Your task to perform on an android device: Is it going to rain today? Image 0: 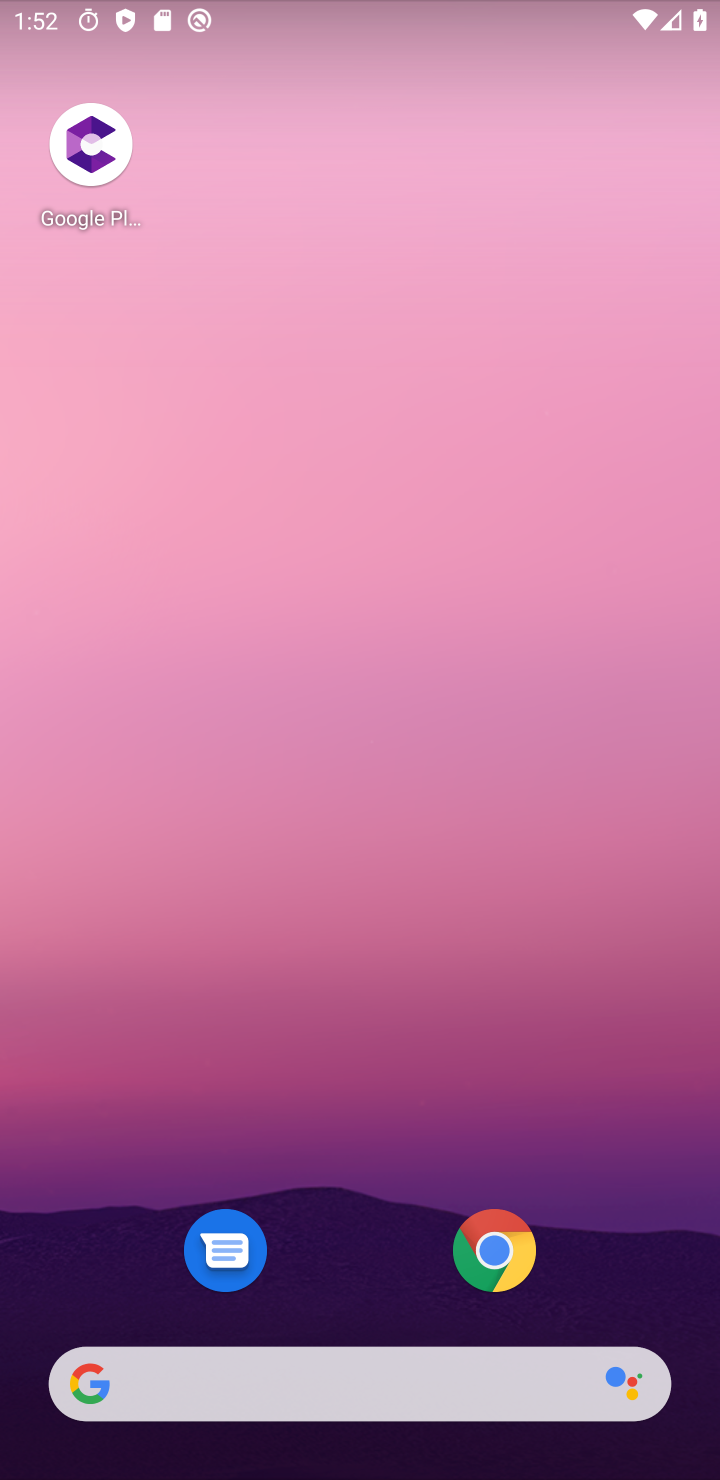
Step 0: drag from (340, 1158) to (496, 588)
Your task to perform on an android device: Is it going to rain today? Image 1: 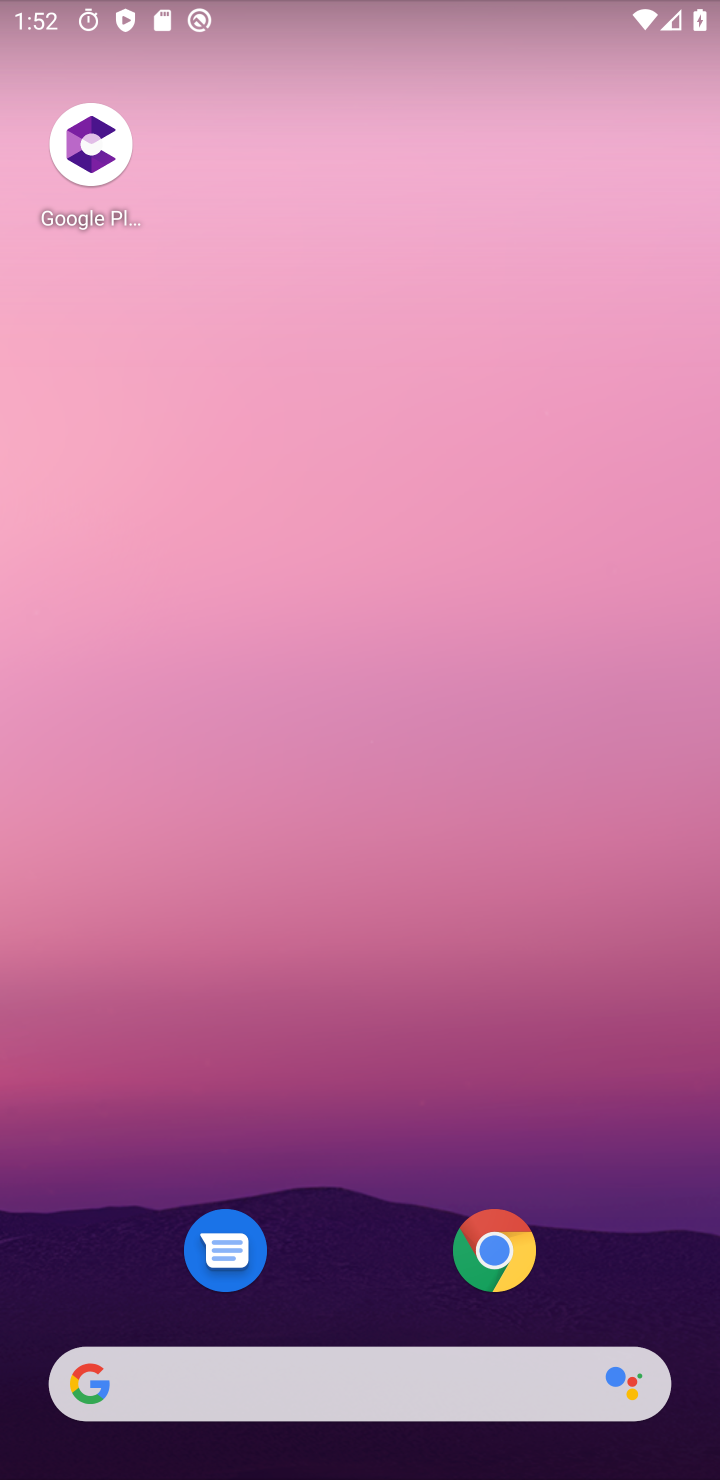
Step 1: drag from (371, 1286) to (390, 486)
Your task to perform on an android device: Is it going to rain today? Image 2: 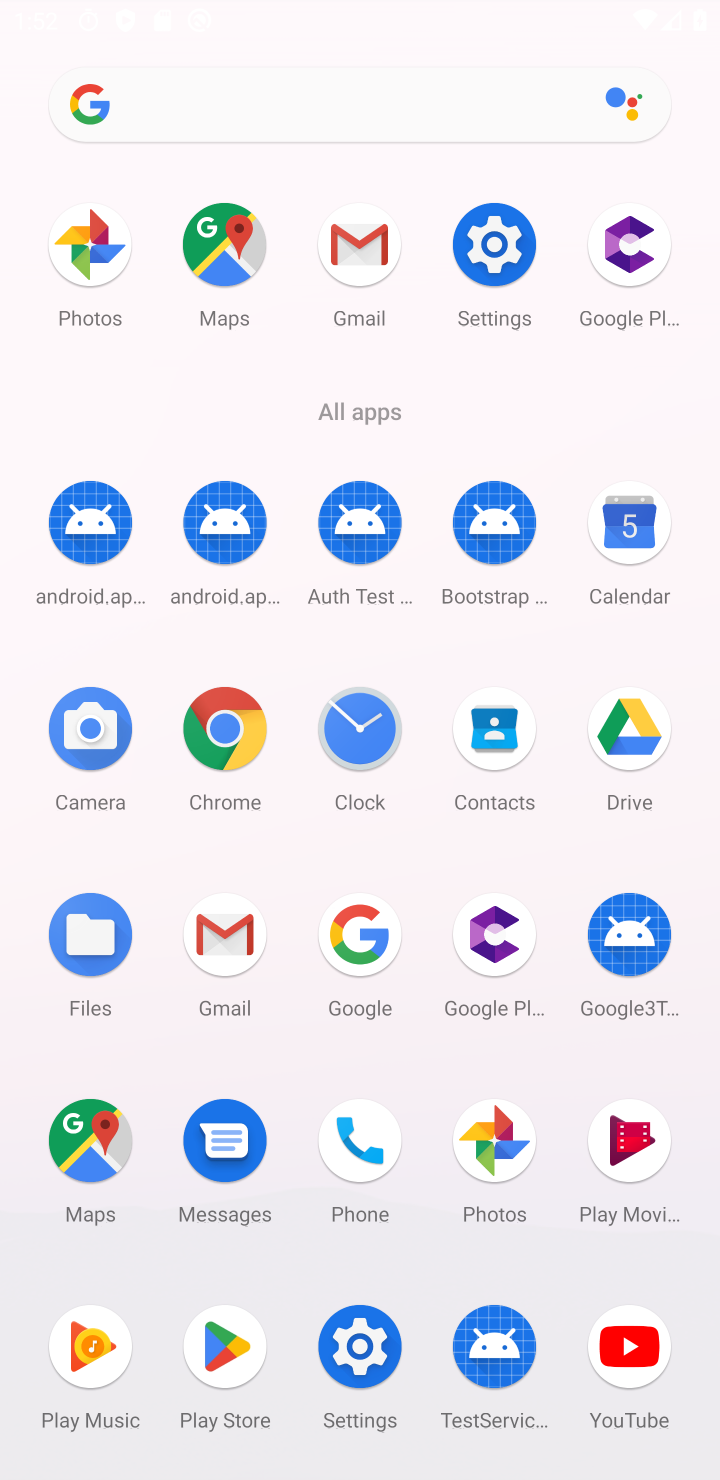
Step 2: drag from (324, 1285) to (430, 339)
Your task to perform on an android device: Is it going to rain today? Image 3: 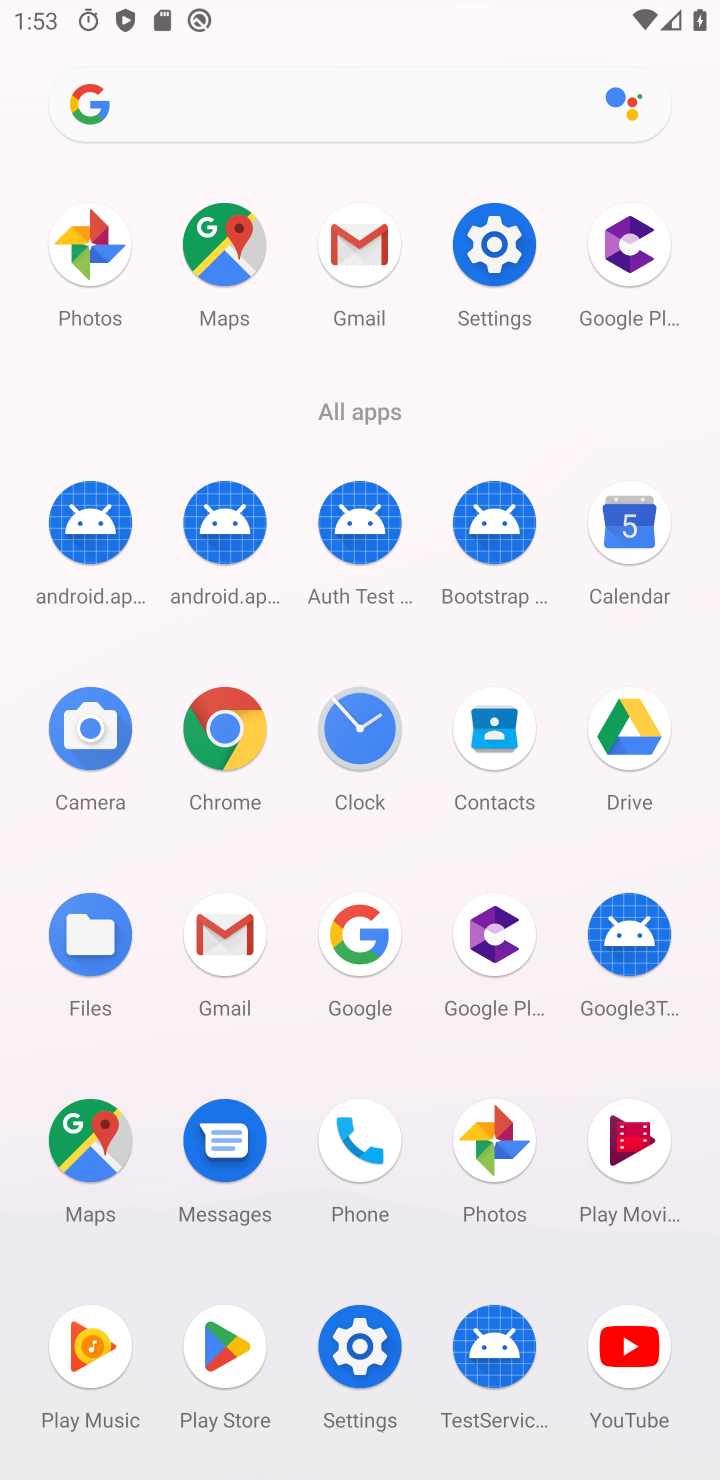
Step 3: drag from (280, 1133) to (287, 419)
Your task to perform on an android device: Is it going to rain today? Image 4: 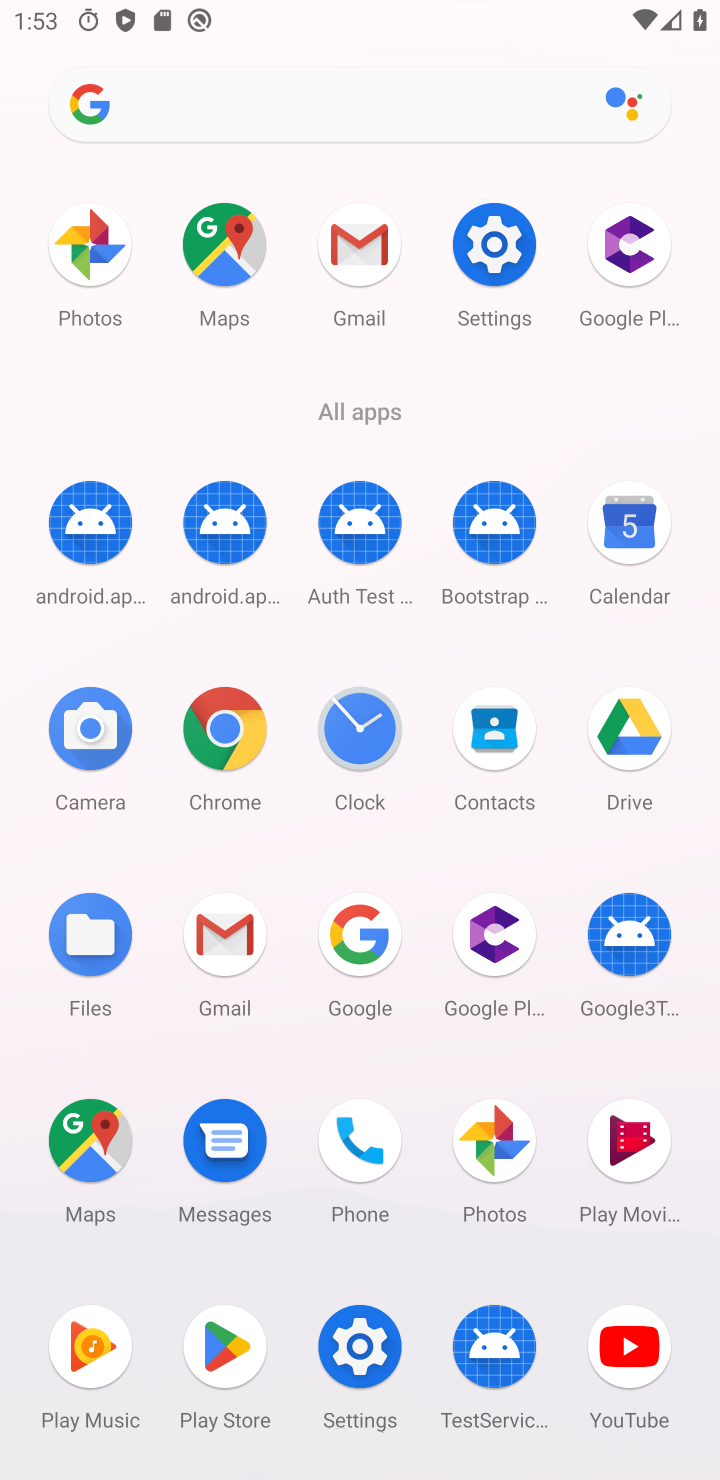
Step 4: click (230, 92)
Your task to perform on an android device: Is it going to rain today? Image 5: 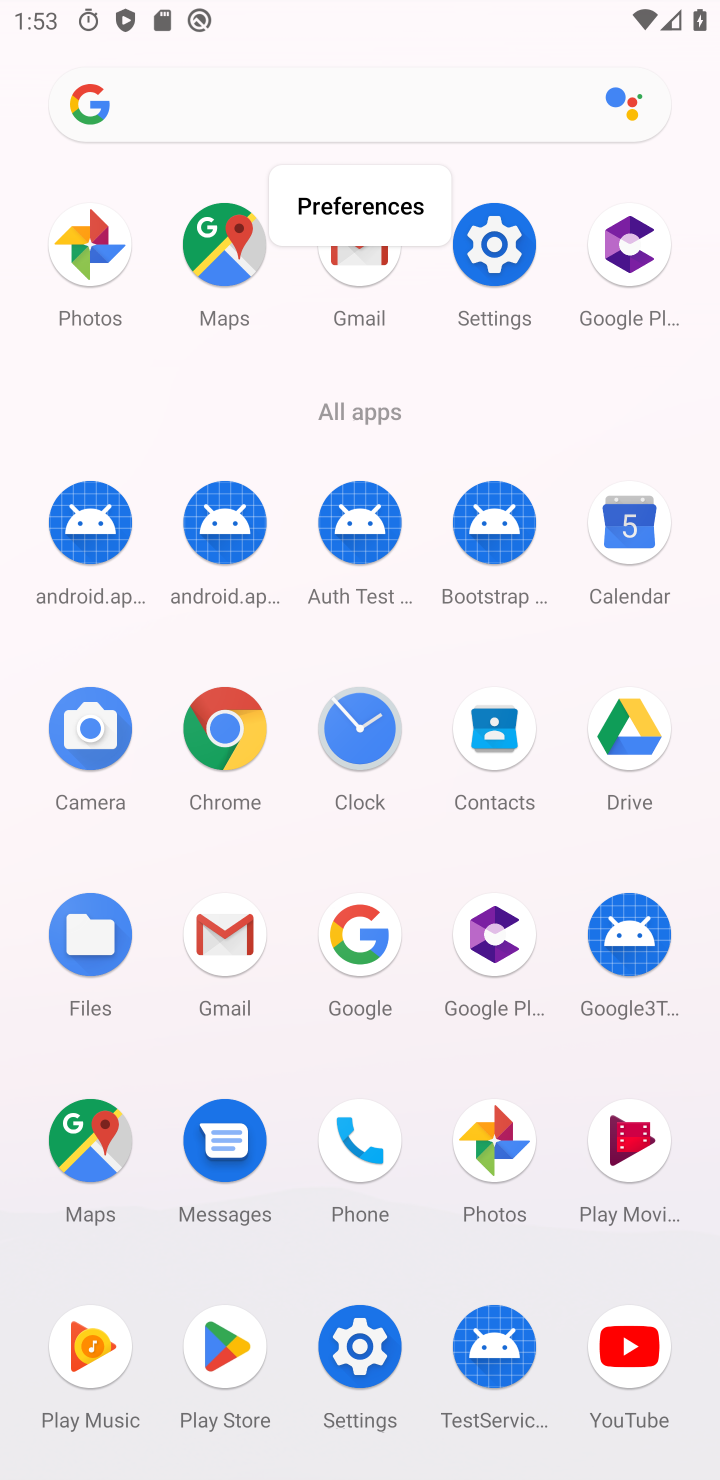
Step 5: type "Is it going to rain today?"
Your task to perform on an android device: Is it going to rain today? Image 6: 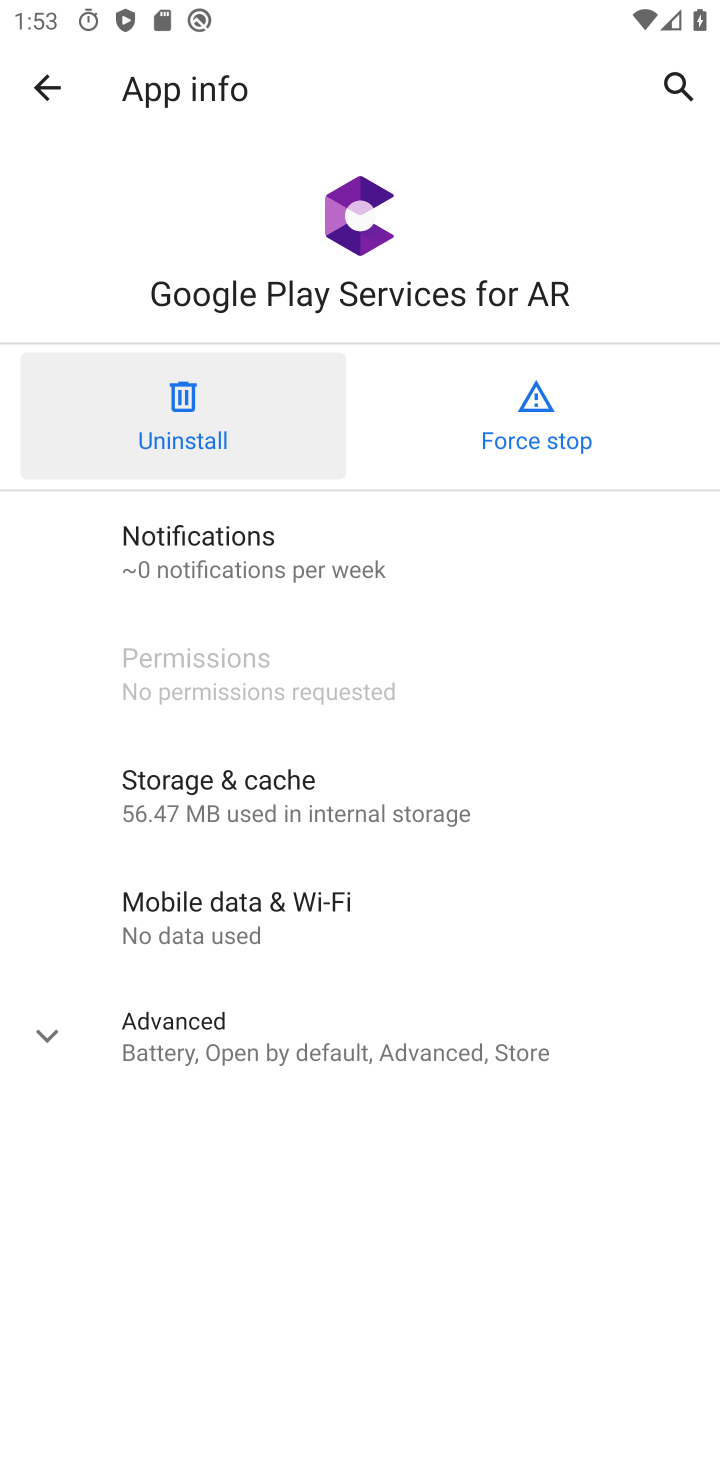
Step 6: drag from (361, 1071) to (437, 504)
Your task to perform on an android device: Is it going to rain today? Image 7: 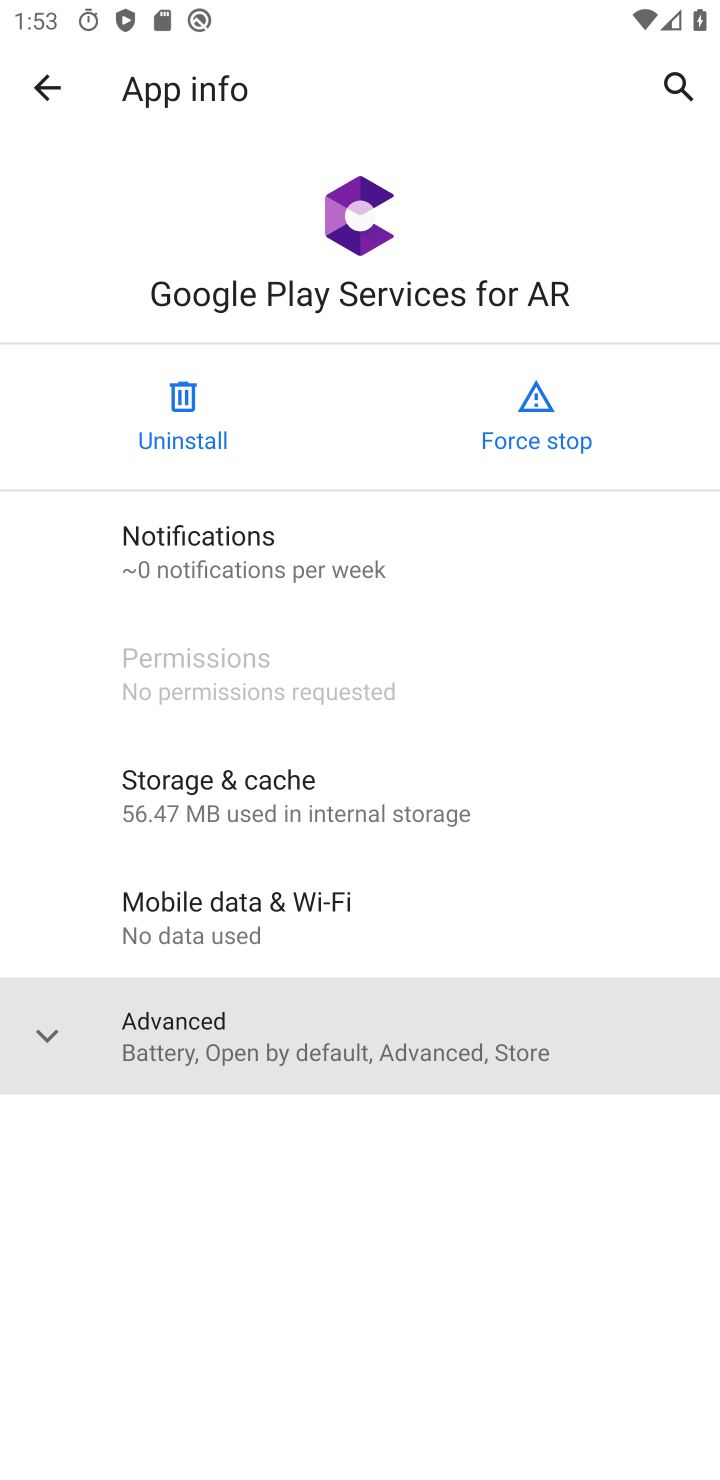
Step 7: drag from (437, 304) to (404, 1233)
Your task to perform on an android device: Is it going to rain today? Image 8: 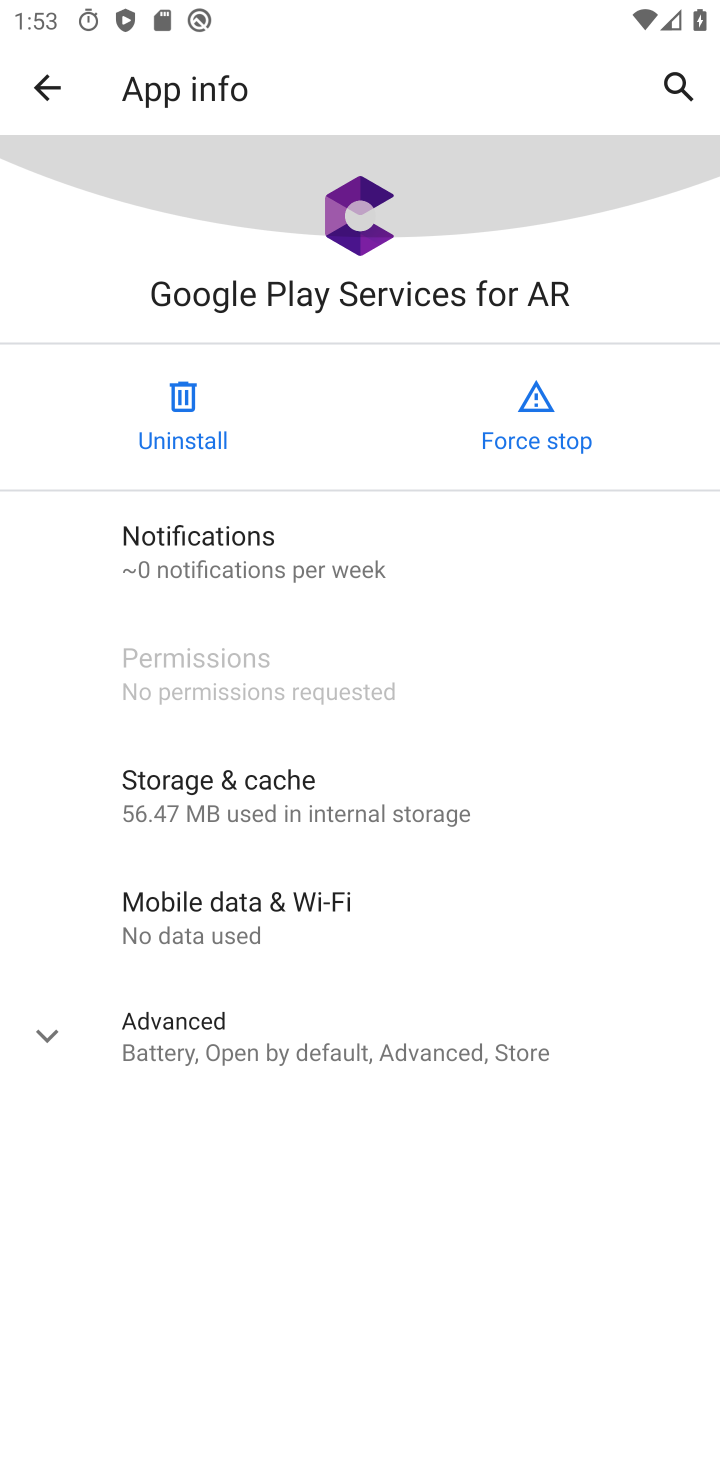
Step 8: drag from (398, 1157) to (460, 444)
Your task to perform on an android device: Is it going to rain today? Image 9: 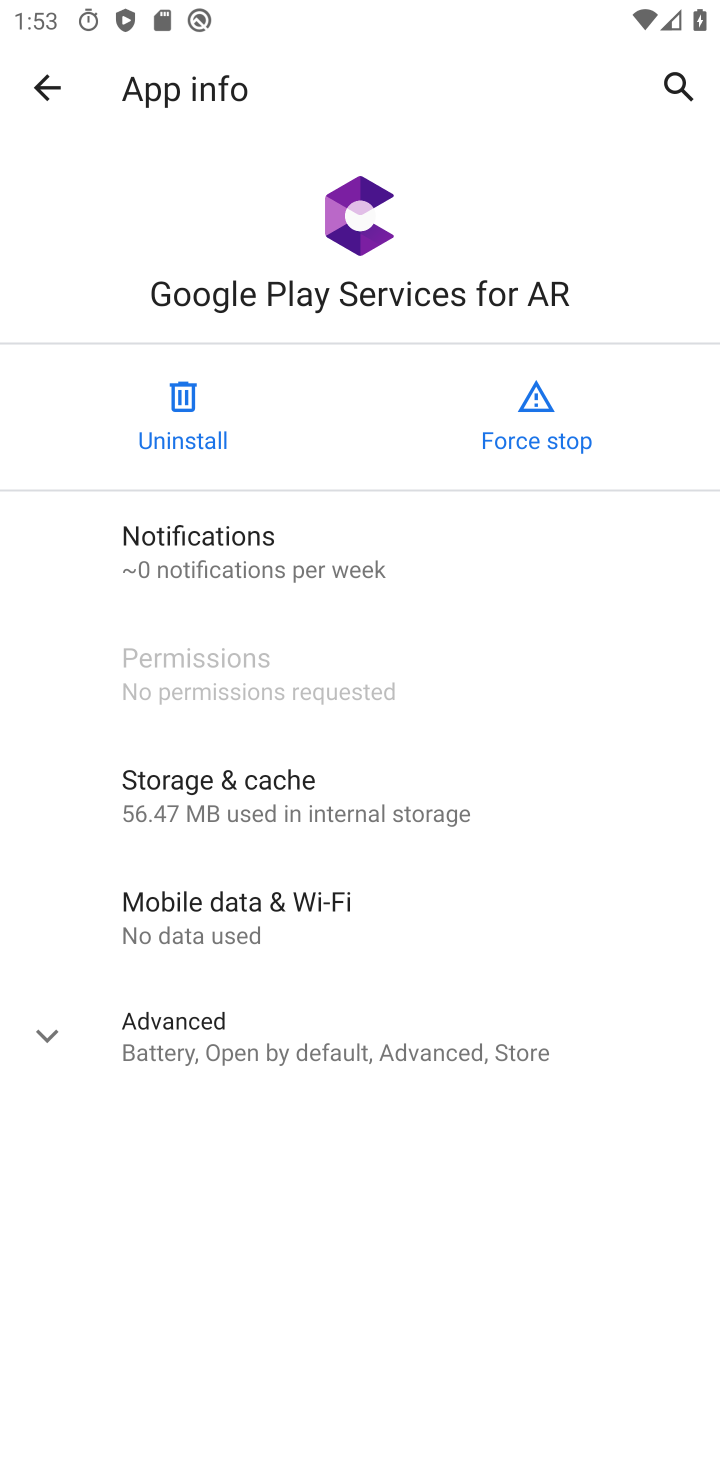
Step 9: drag from (410, 289) to (426, 744)
Your task to perform on an android device: Is it going to rain today? Image 10: 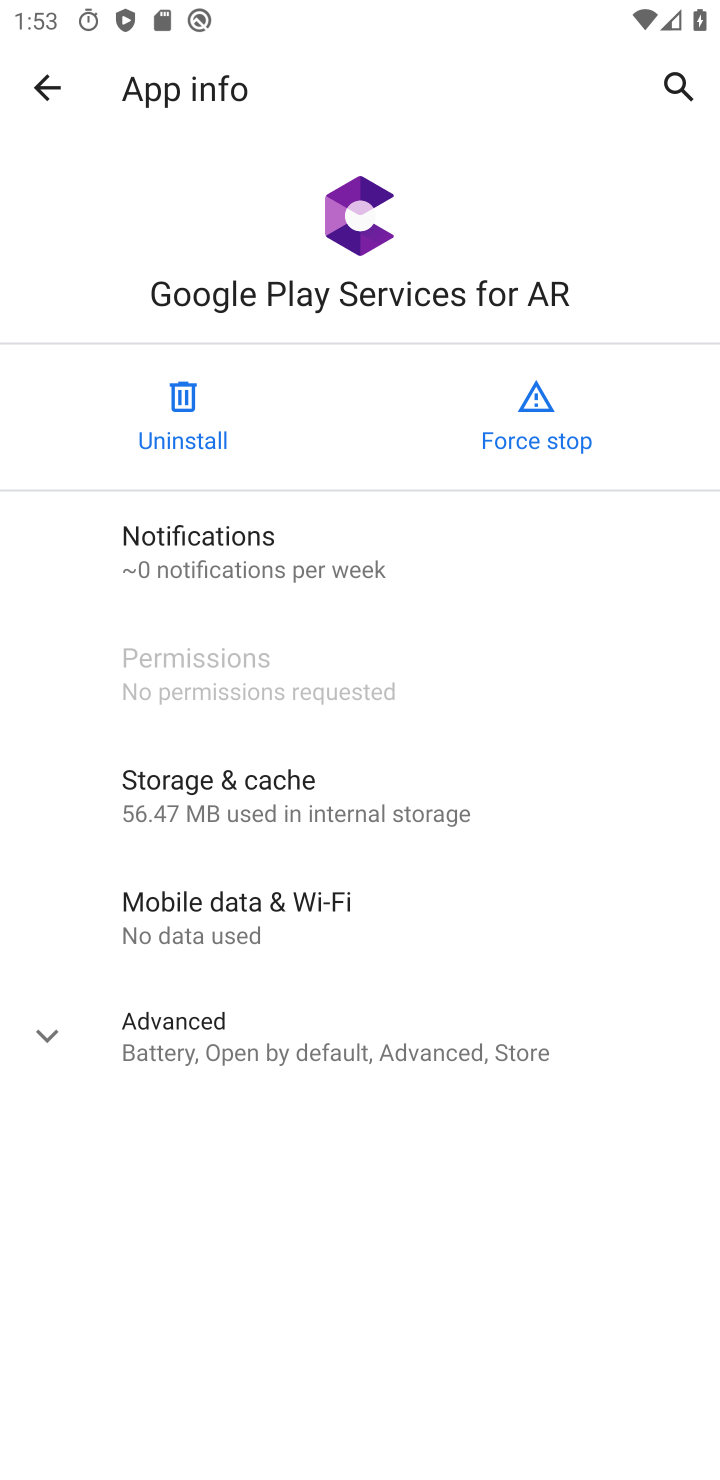
Step 10: press home button
Your task to perform on an android device: Is it going to rain today? Image 11: 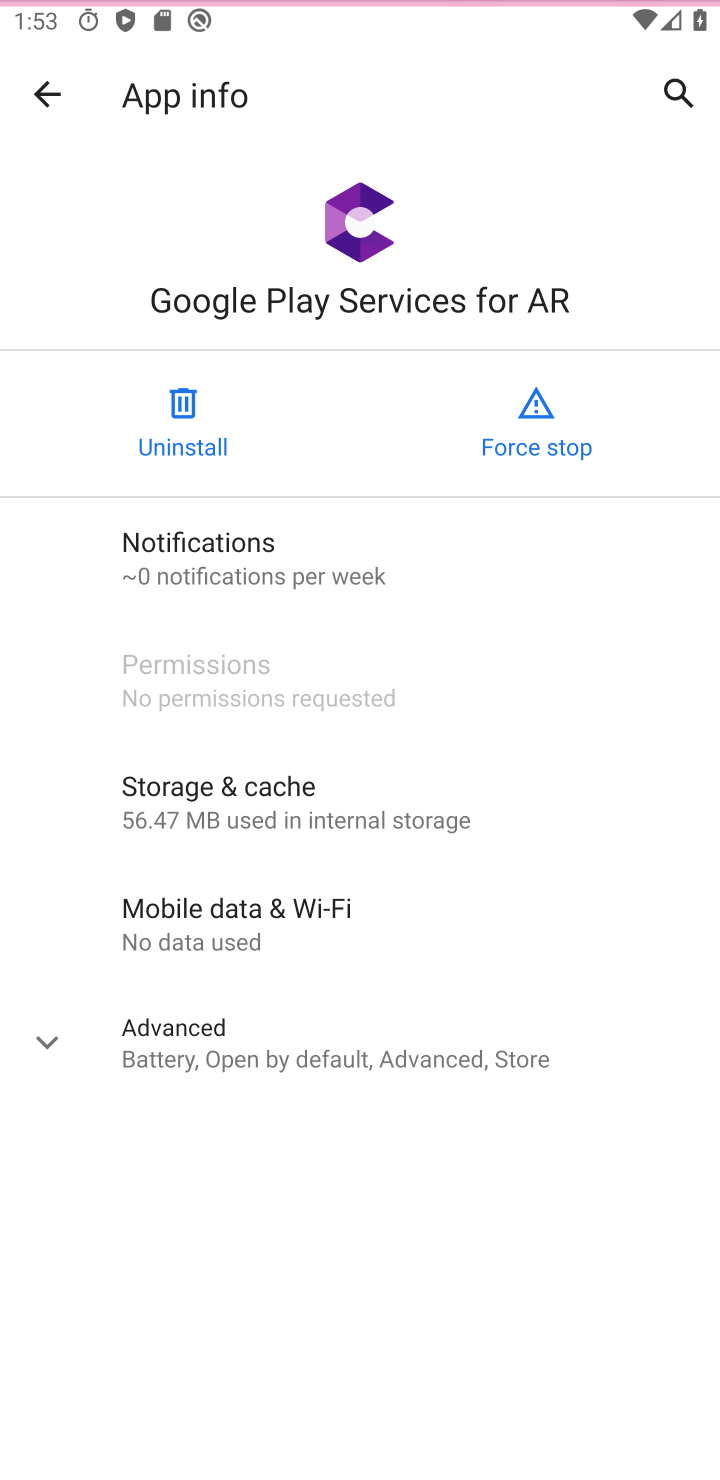
Step 11: drag from (359, 583) to (395, 243)
Your task to perform on an android device: Is it going to rain today? Image 12: 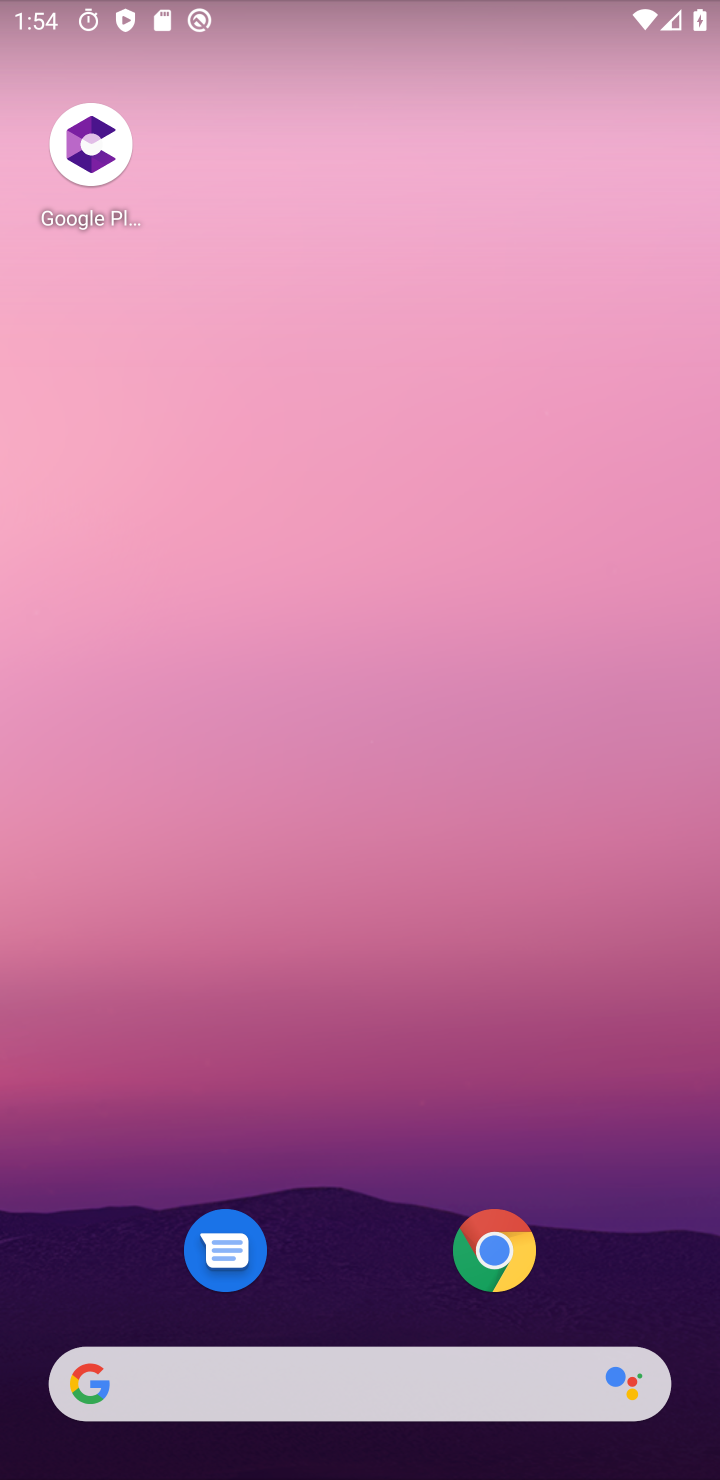
Step 12: drag from (423, 919) to (578, 460)
Your task to perform on an android device: Is it going to rain today? Image 13: 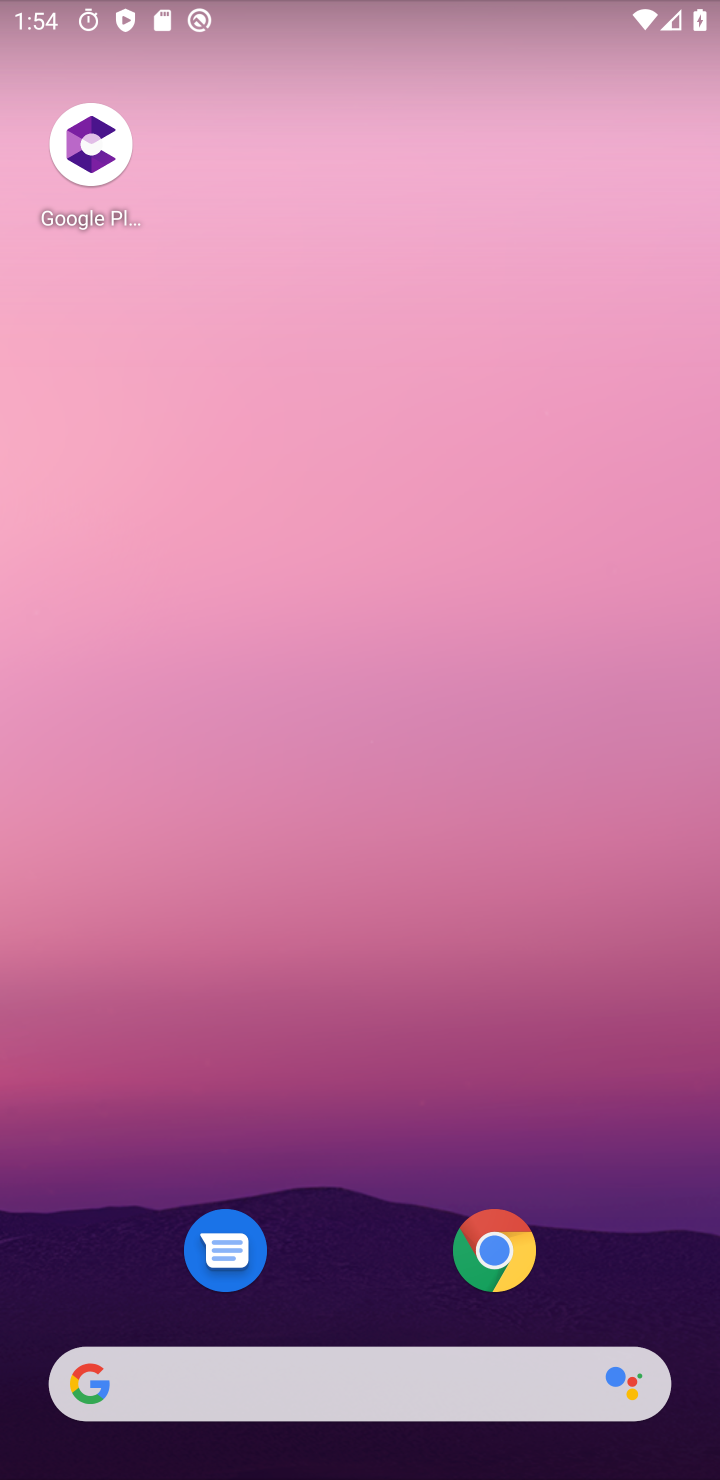
Step 13: drag from (409, 862) to (513, 230)
Your task to perform on an android device: Is it going to rain today? Image 14: 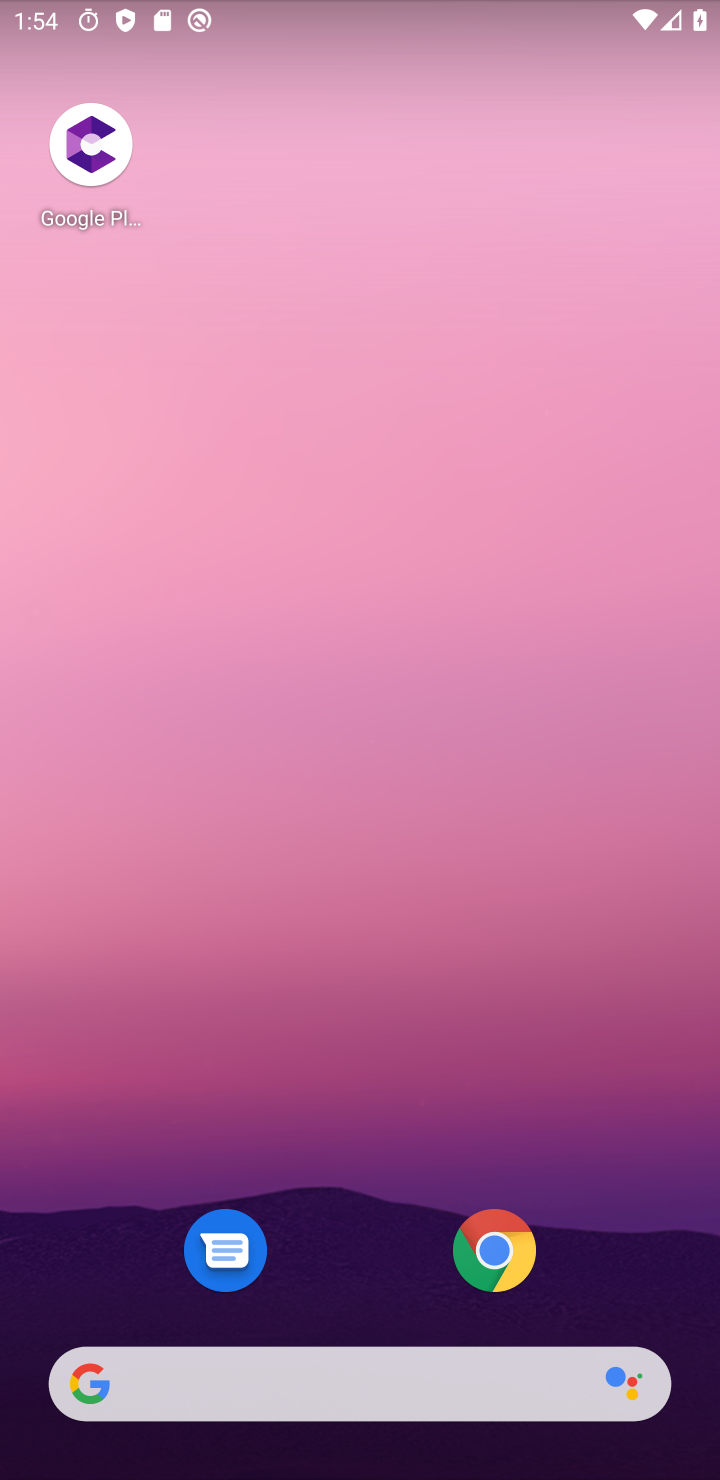
Step 14: drag from (346, 1199) to (418, 235)
Your task to perform on an android device: Is it going to rain today? Image 15: 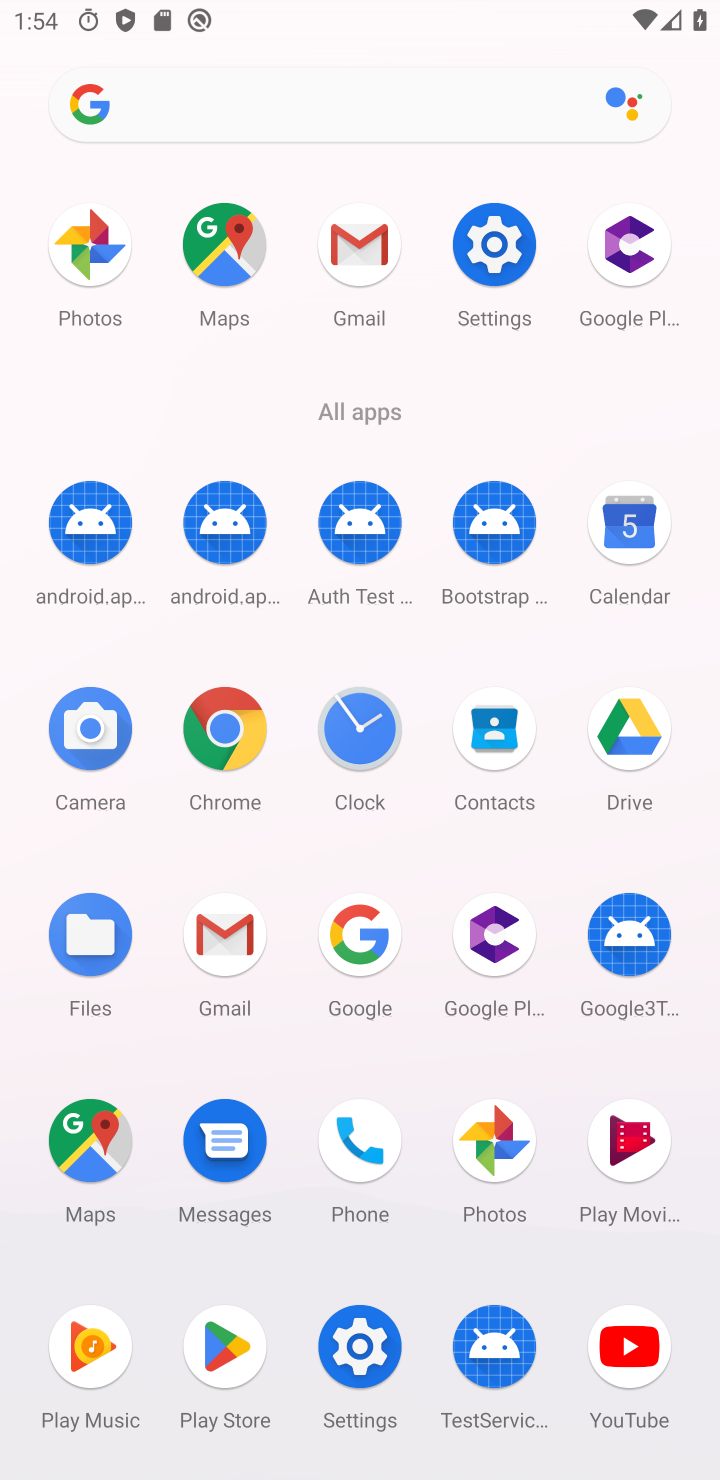
Step 15: click (222, 106)
Your task to perform on an android device: Is it going to rain today? Image 16: 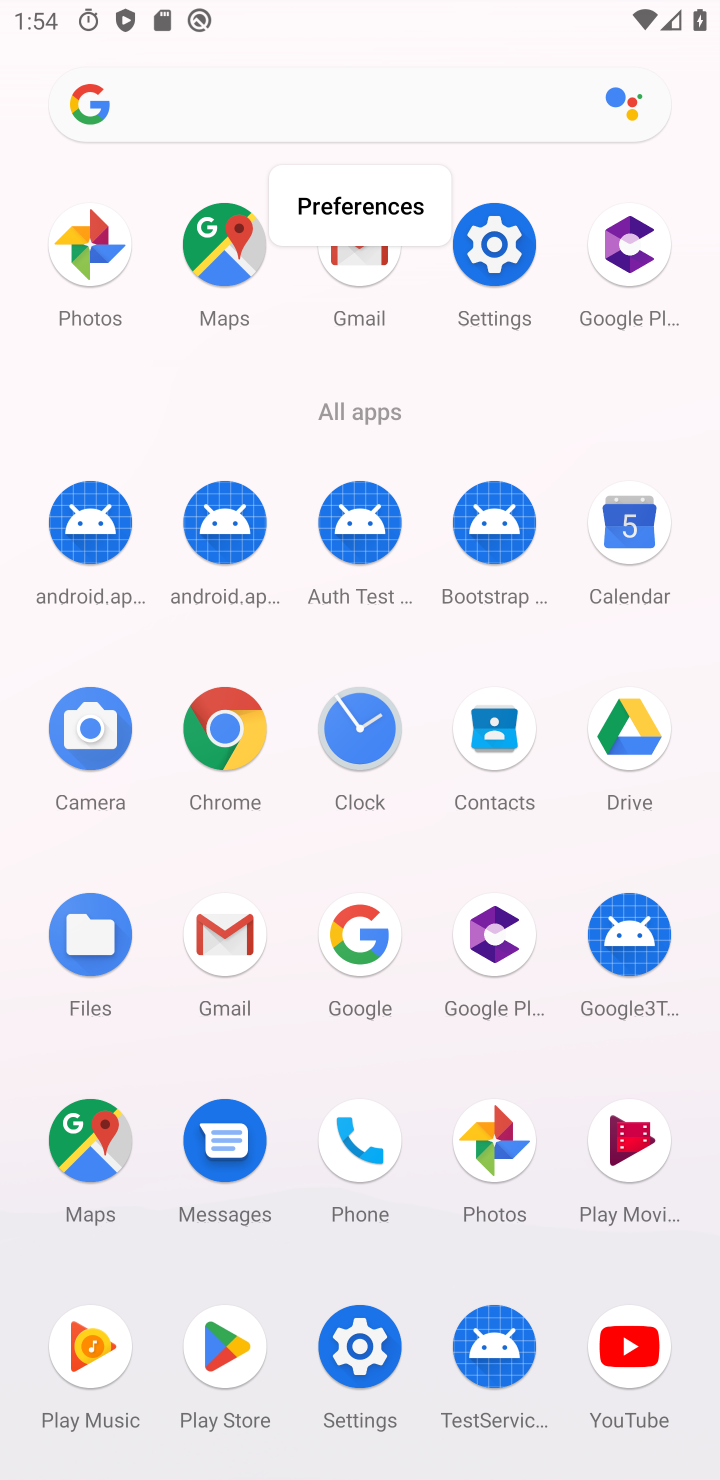
Step 16: click (289, 112)
Your task to perform on an android device: Is it going to rain today? Image 17: 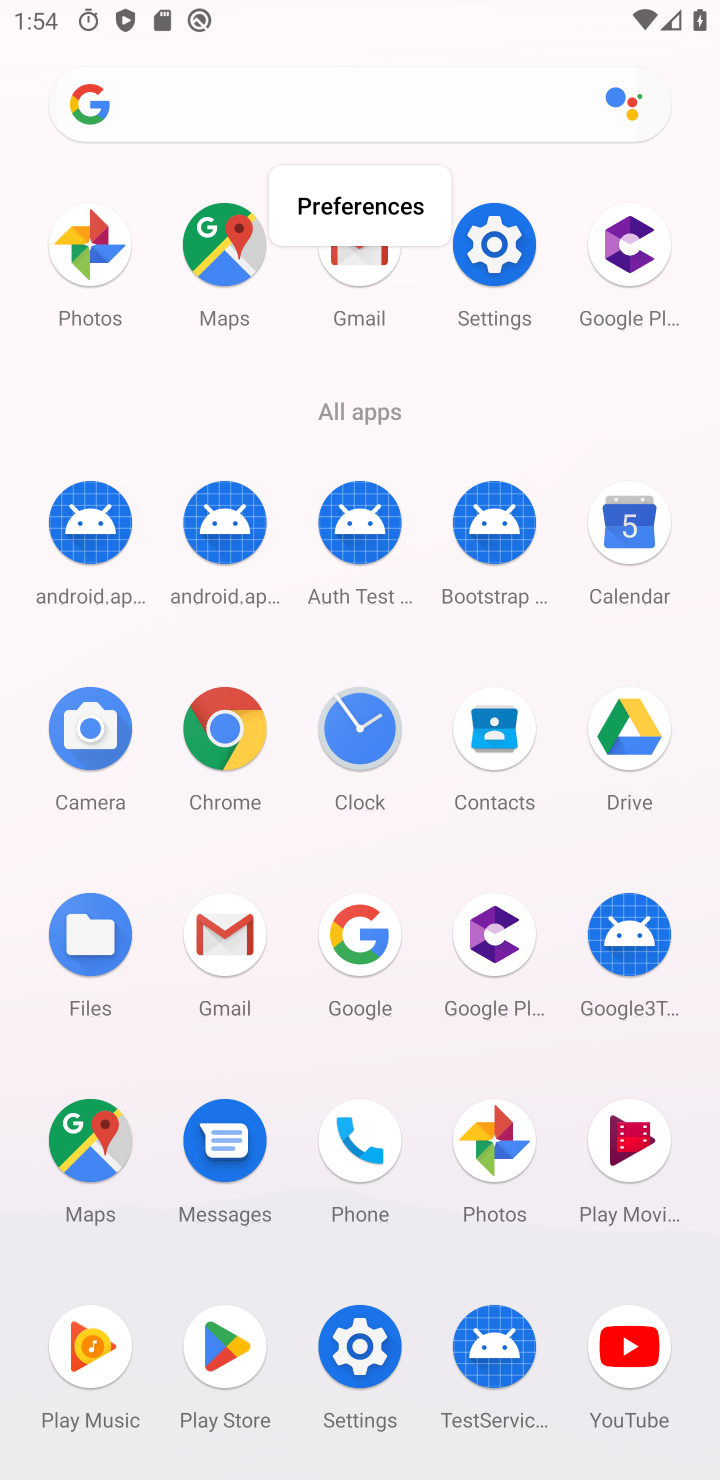
Step 17: click (289, 112)
Your task to perform on an android device: Is it going to rain today? Image 18: 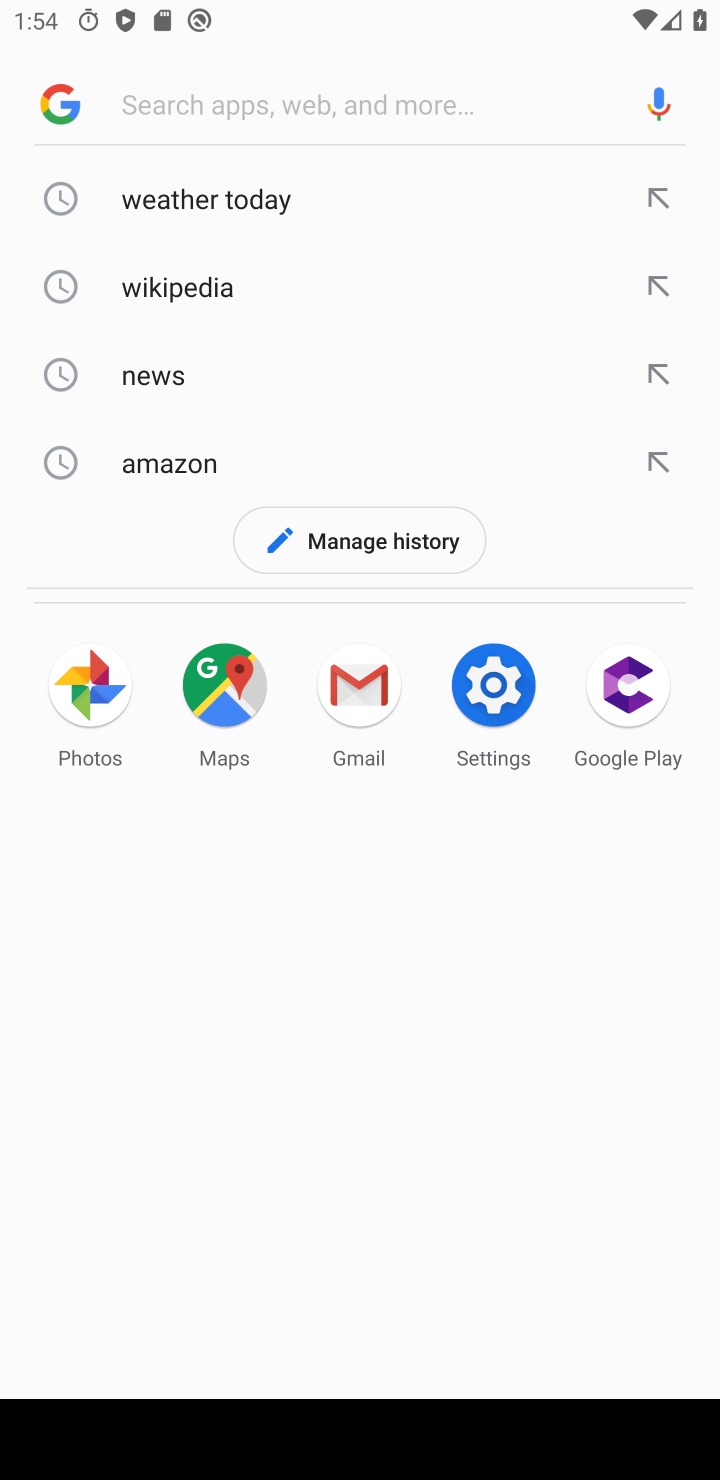
Step 18: type "Is it going to rain today?"
Your task to perform on an android device: Is it going to rain today? Image 19: 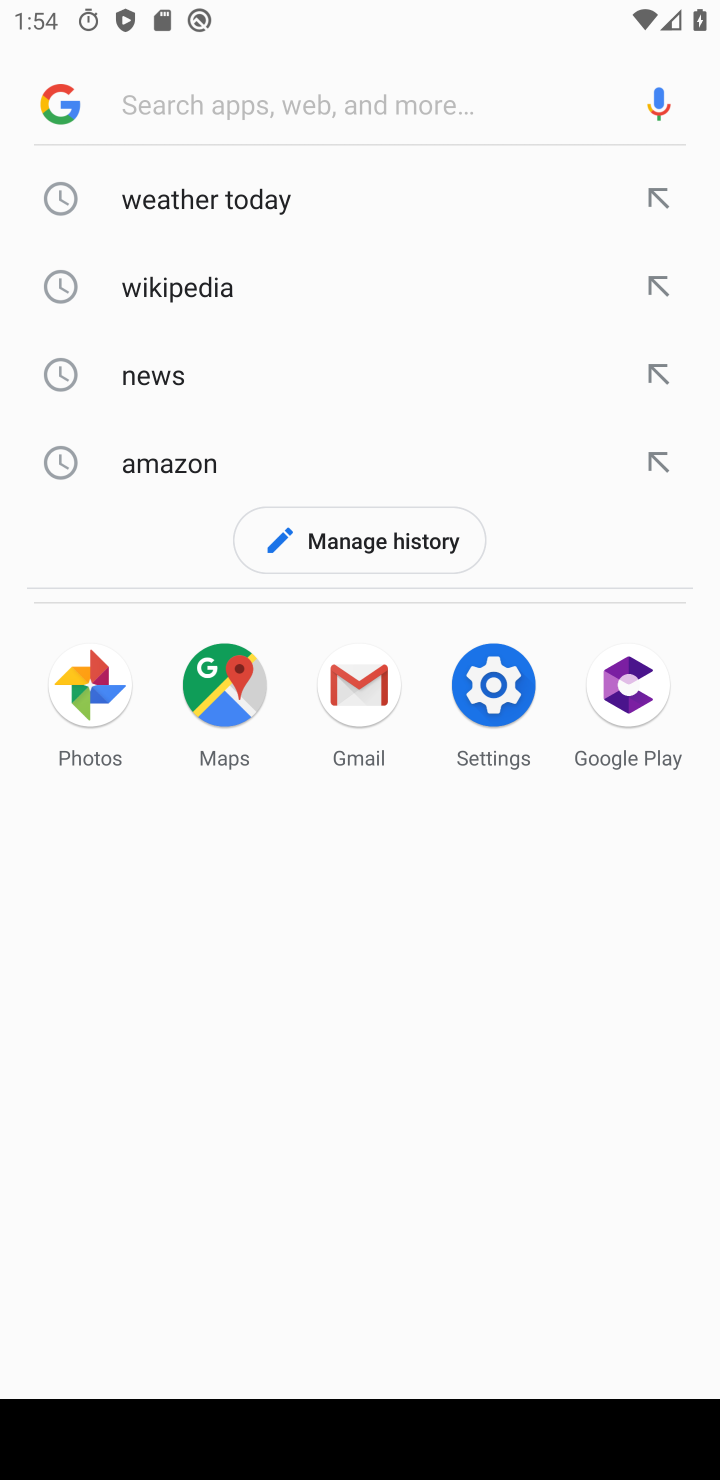
Step 19: click (249, 107)
Your task to perform on an android device: Is it going to rain today? Image 20: 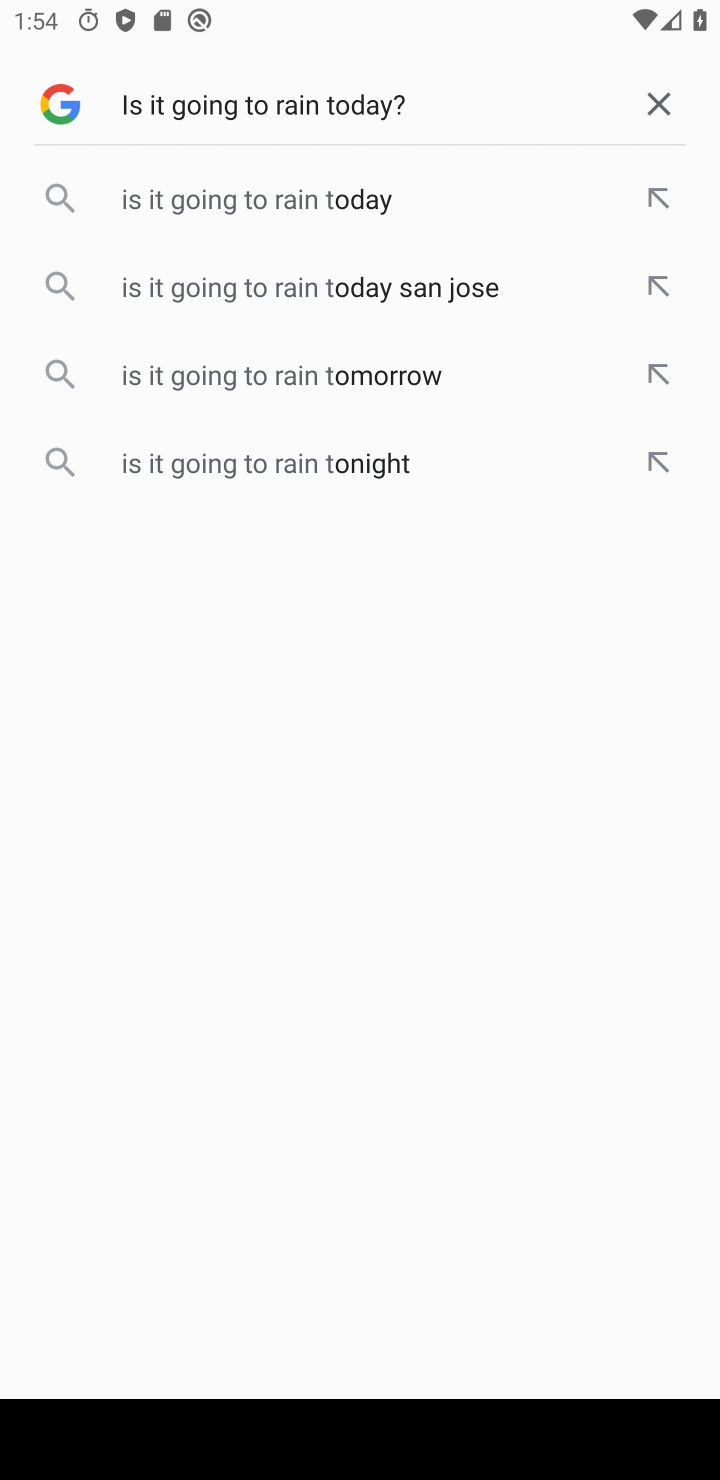
Step 20: type ""
Your task to perform on an android device: Is it going to rain today? Image 21: 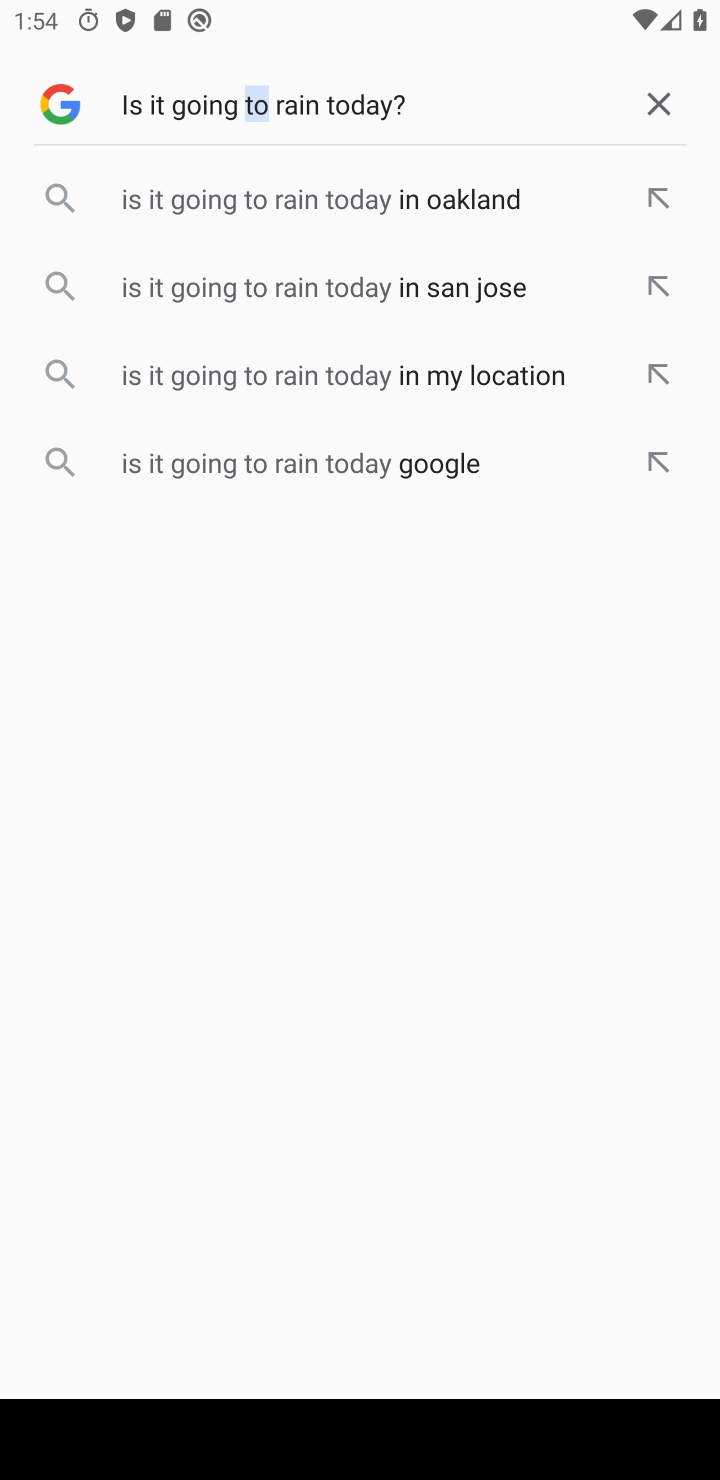
Step 21: click (158, 98)
Your task to perform on an android device: Is it going to rain today? Image 22: 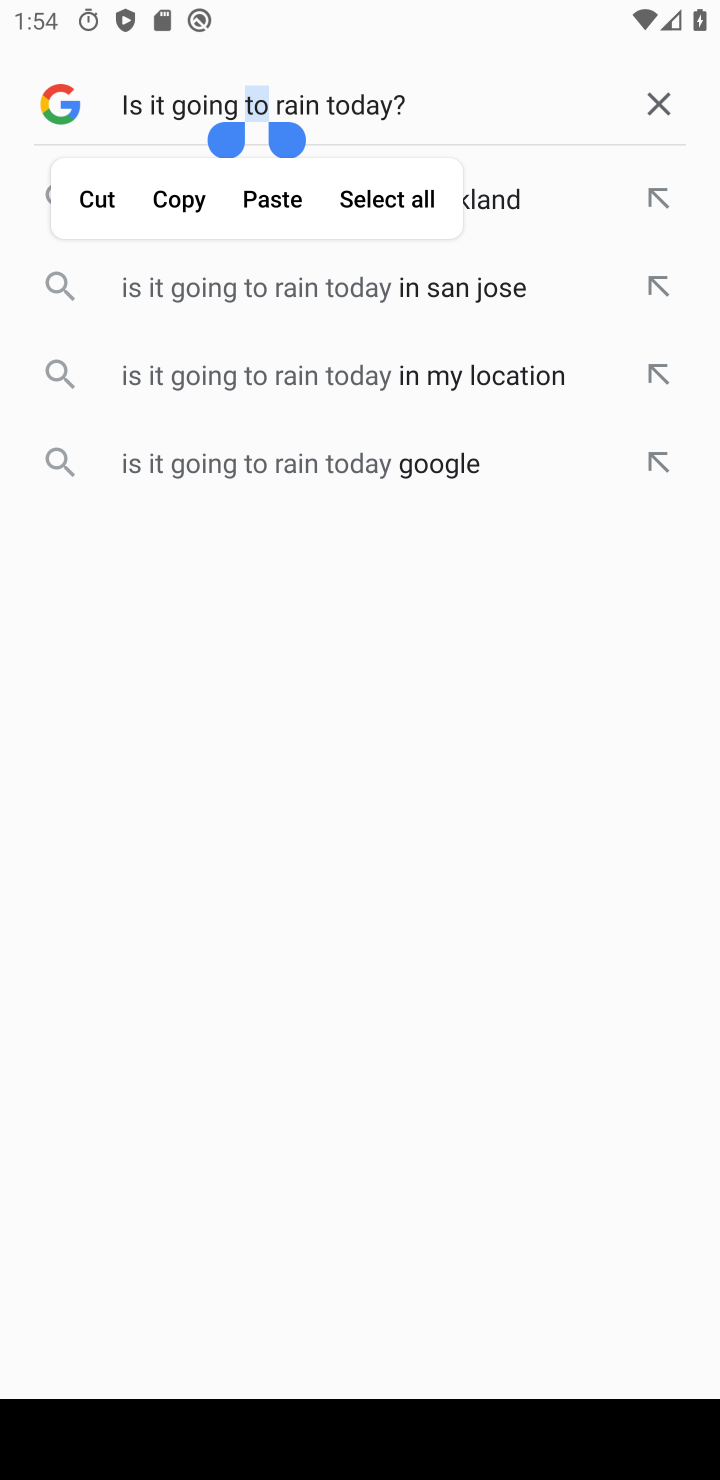
Step 22: click (228, 471)
Your task to perform on an android device: Is it going to rain today? Image 23: 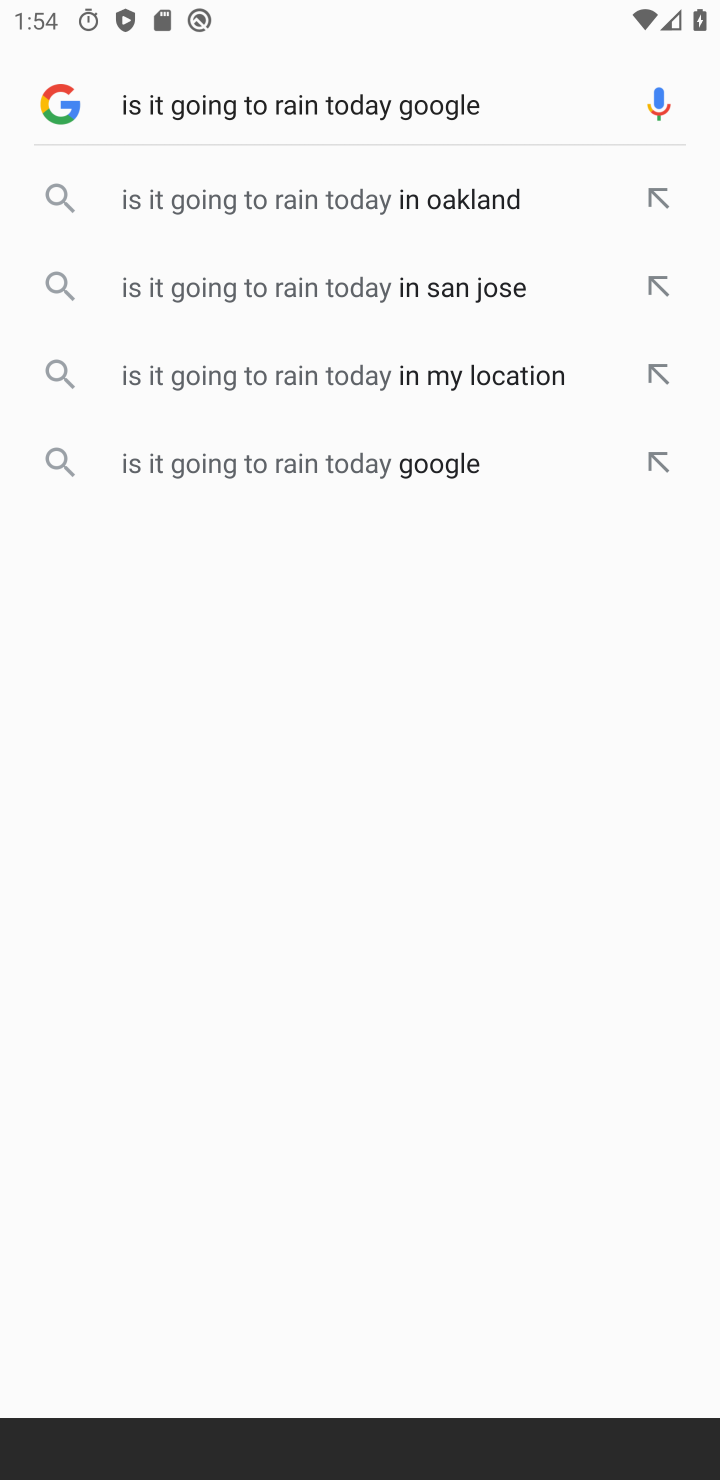
Step 23: task complete